Your task to perform on an android device: Toggle the flashlight Image 0: 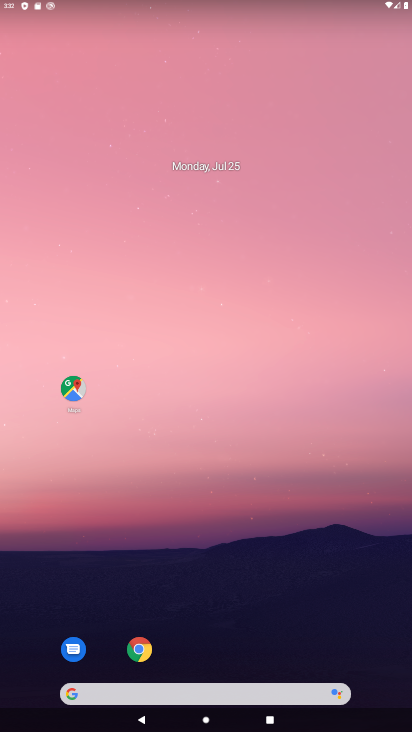
Step 0: drag from (220, 468) to (263, 132)
Your task to perform on an android device: Toggle the flashlight Image 1: 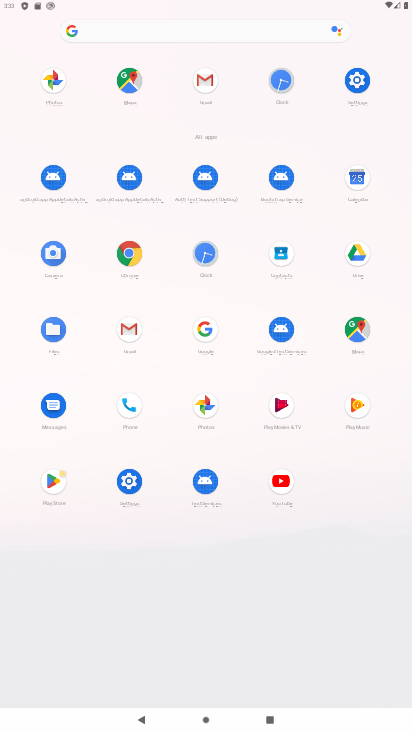
Step 1: task complete